Your task to perform on an android device: change the clock display to analog Image 0: 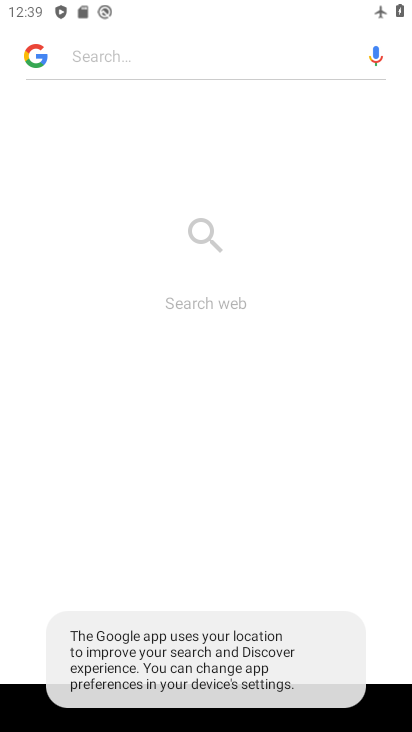
Step 0: press home button
Your task to perform on an android device: change the clock display to analog Image 1: 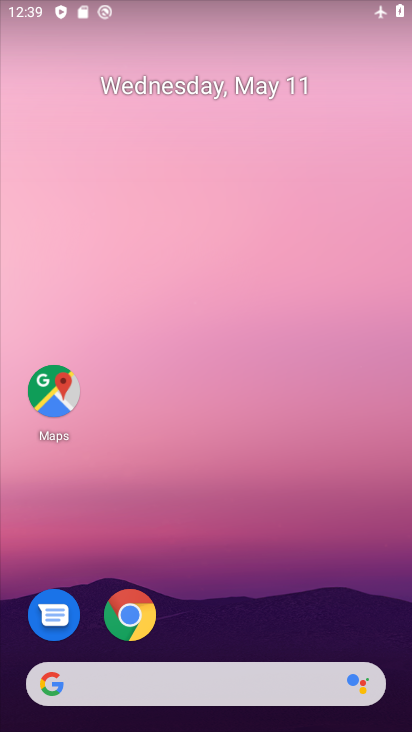
Step 1: drag from (372, 589) to (364, 210)
Your task to perform on an android device: change the clock display to analog Image 2: 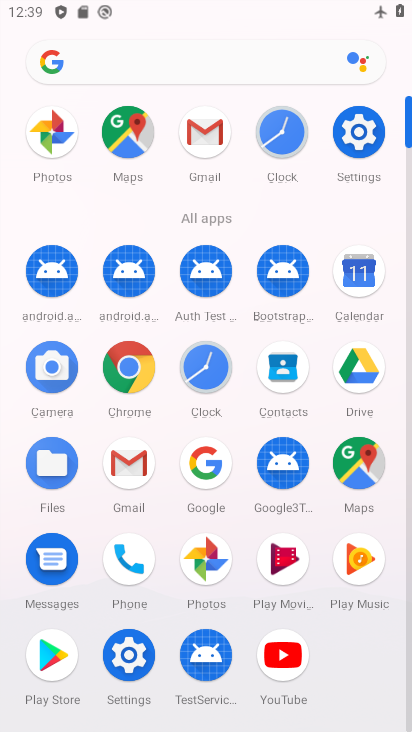
Step 2: click (205, 390)
Your task to perform on an android device: change the clock display to analog Image 3: 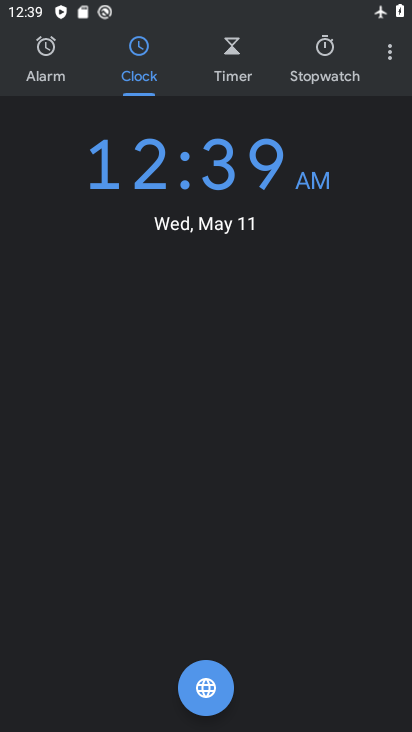
Step 3: click (389, 64)
Your task to perform on an android device: change the clock display to analog Image 4: 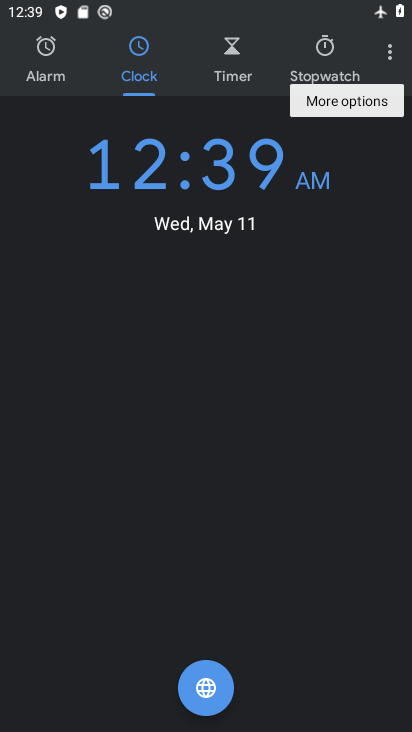
Step 4: click (388, 65)
Your task to perform on an android device: change the clock display to analog Image 5: 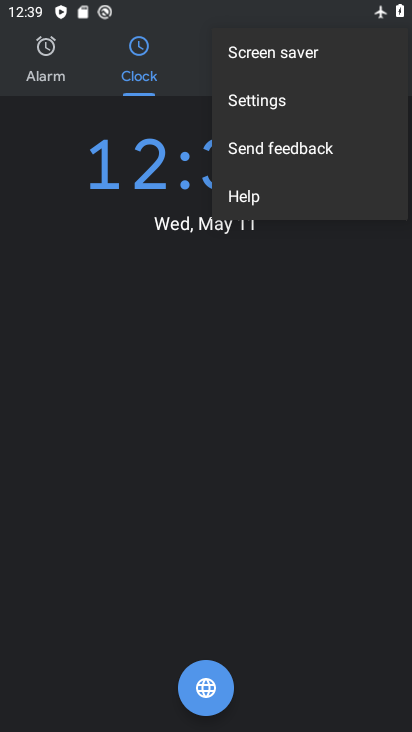
Step 5: click (297, 108)
Your task to perform on an android device: change the clock display to analog Image 6: 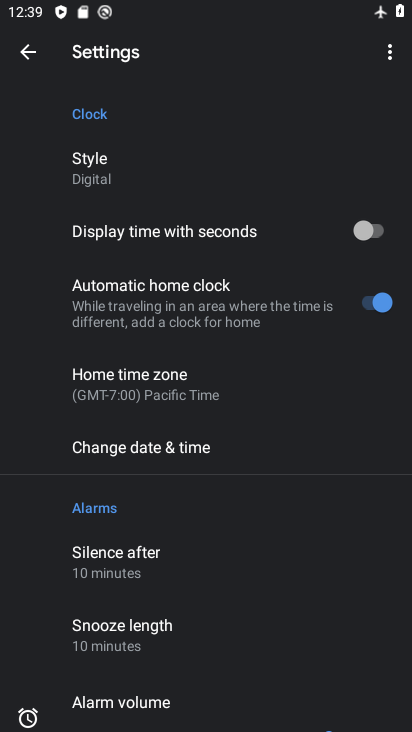
Step 6: click (209, 168)
Your task to perform on an android device: change the clock display to analog Image 7: 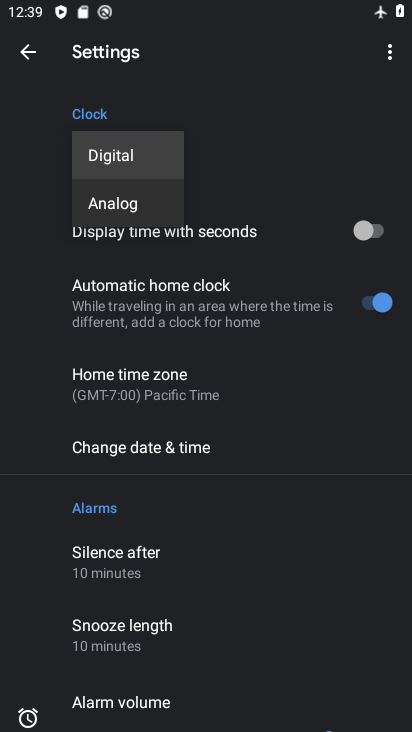
Step 7: click (129, 205)
Your task to perform on an android device: change the clock display to analog Image 8: 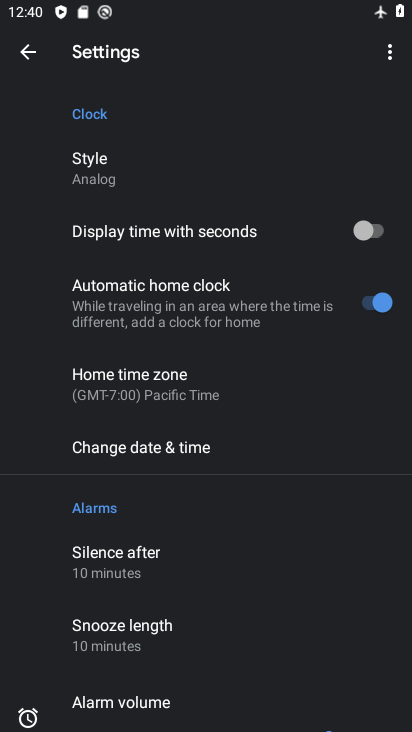
Step 8: task complete